Your task to perform on an android device: Show me the alarms in the clock app Image 0: 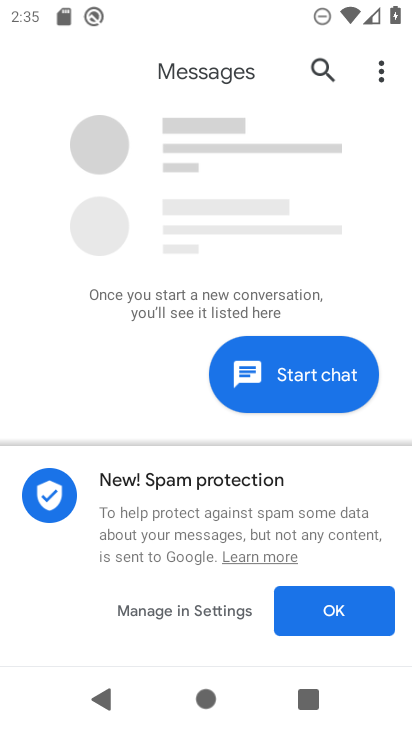
Step 0: press home button
Your task to perform on an android device: Show me the alarms in the clock app Image 1: 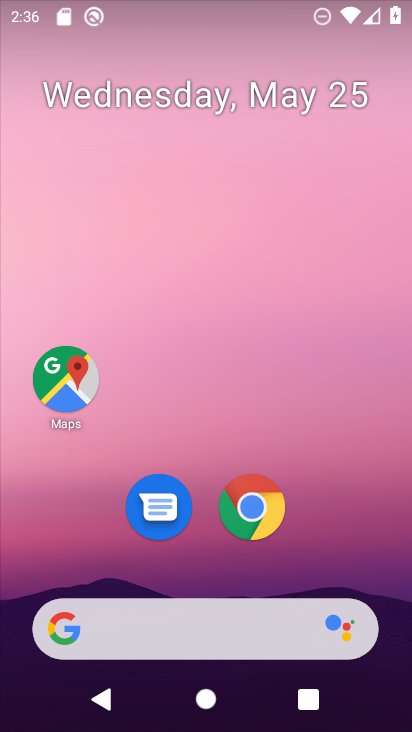
Step 1: drag from (314, 593) to (347, 415)
Your task to perform on an android device: Show me the alarms in the clock app Image 2: 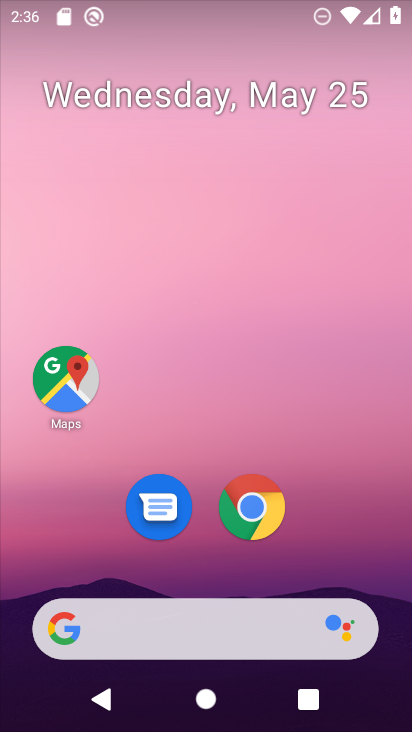
Step 2: drag from (291, 639) to (281, 190)
Your task to perform on an android device: Show me the alarms in the clock app Image 3: 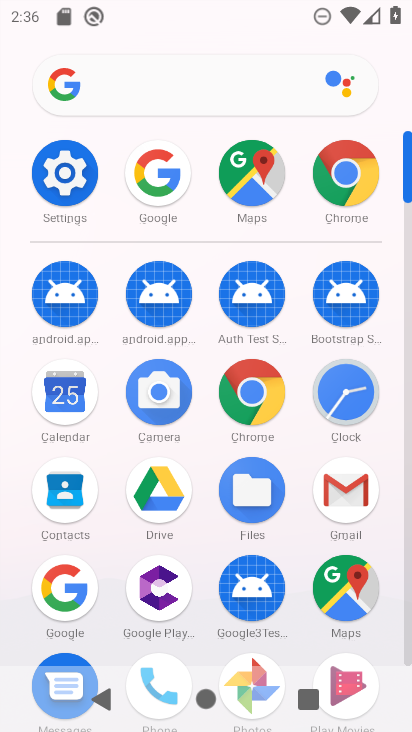
Step 3: click (349, 382)
Your task to perform on an android device: Show me the alarms in the clock app Image 4: 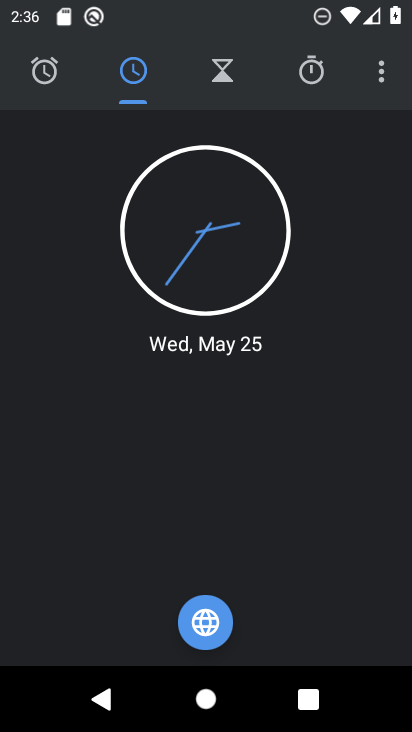
Step 4: click (63, 88)
Your task to perform on an android device: Show me the alarms in the clock app Image 5: 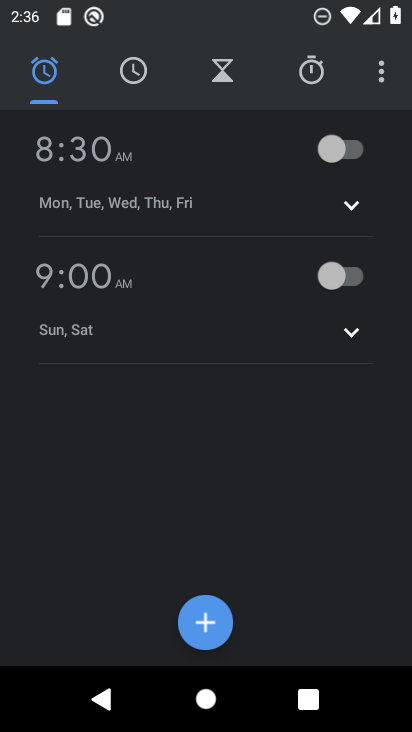
Step 5: task complete